Your task to perform on an android device: check the backup settings in the google photos Image 0: 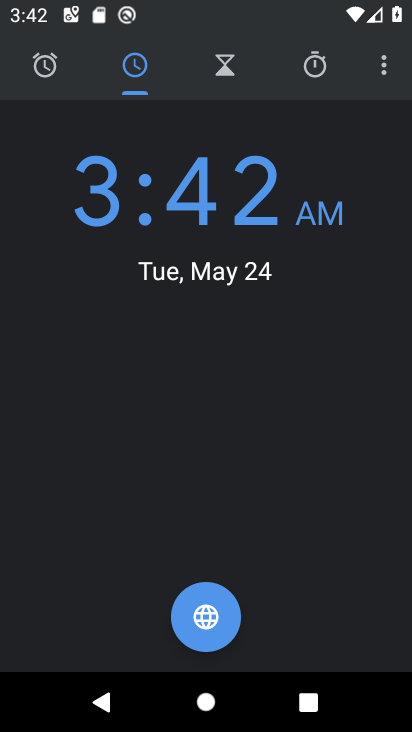
Step 0: press home button
Your task to perform on an android device: check the backup settings in the google photos Image 1: 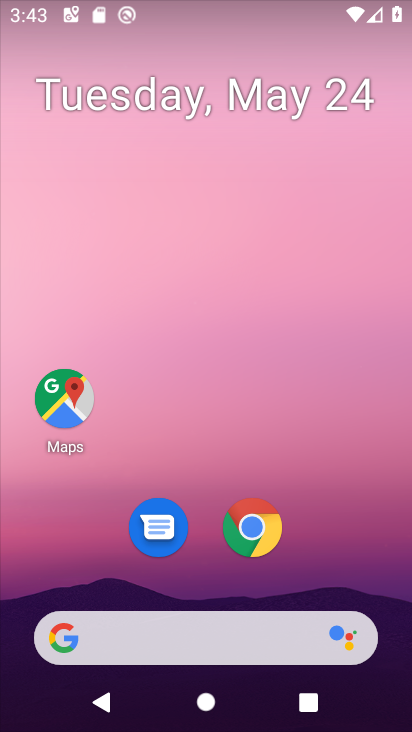
Step 1: drag from (357, 588) to (340, 16)
Your task to perform on an android device: check the backup settings in the google photos Image 2: 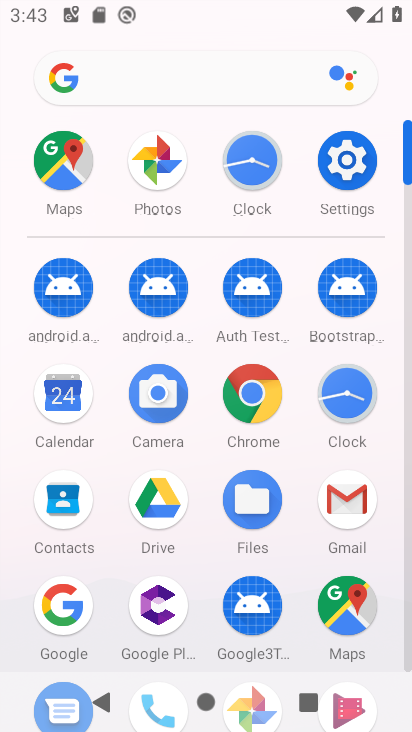
Step 2: click (154, 165)
Your task to perform on an android device: check the backup settings in the google photos Image 3: 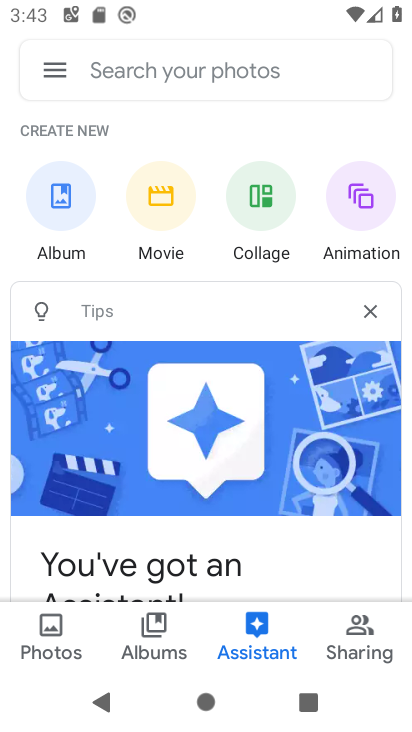
Step 3: click (53, 71)
Your task to perform on an android device: check the backup settings in the google photos Image 4: 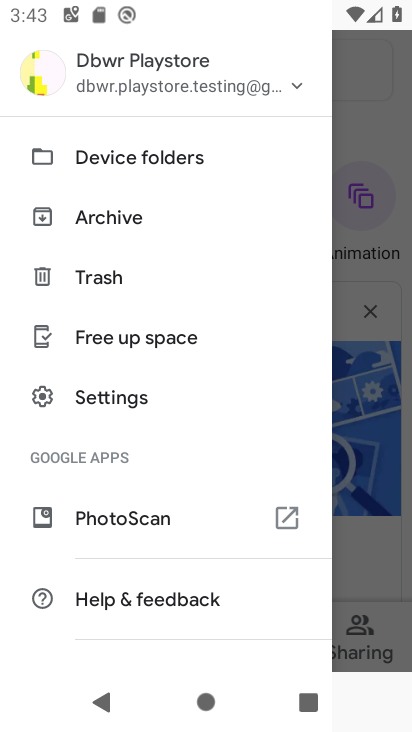
Step 4: click (124, 401)
Your task to perform on an android device: check the backup settings in the google photos Image 5: 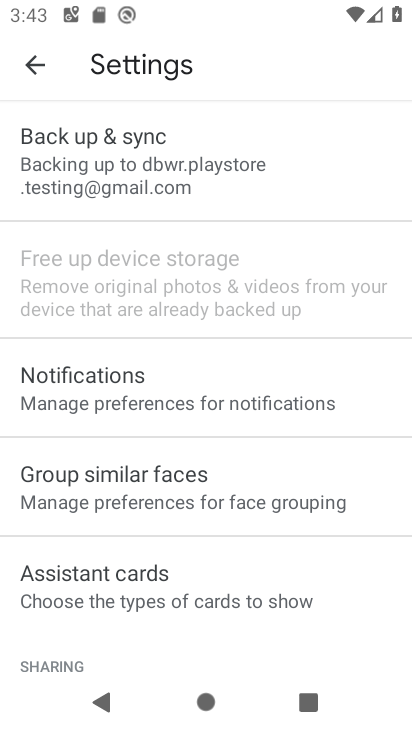
Step 5: click (79, 166)
Your task to perform on an android device: check the backup settings in the google photos Image 6: 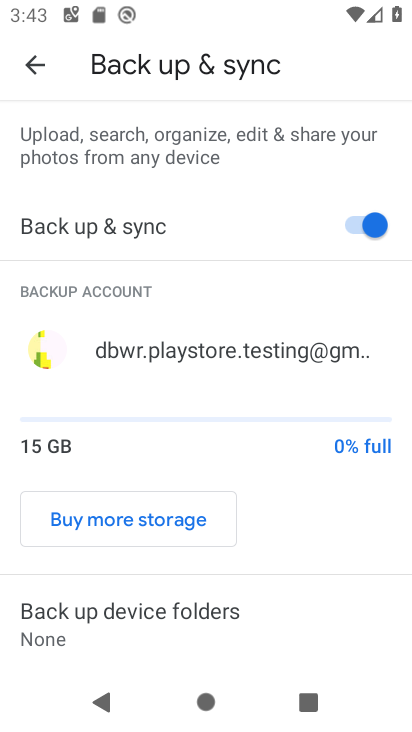
Step 6: task complete